Your task to perform on an android device: Go to Yahoo.com Image 0: 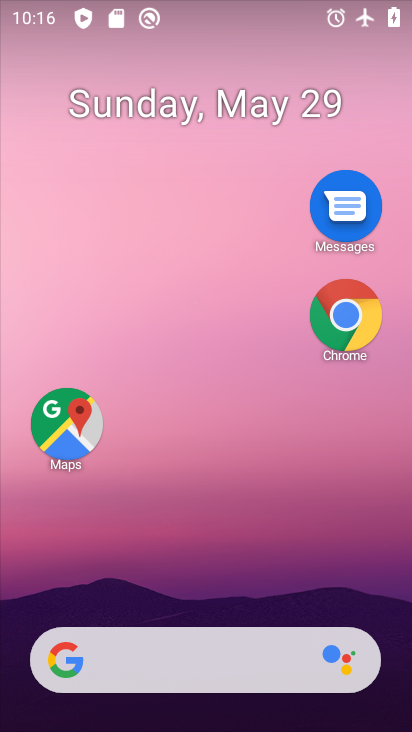
Step 0: press home button
Your task to perform on an android device: Go to Yahoo.com Image 1: 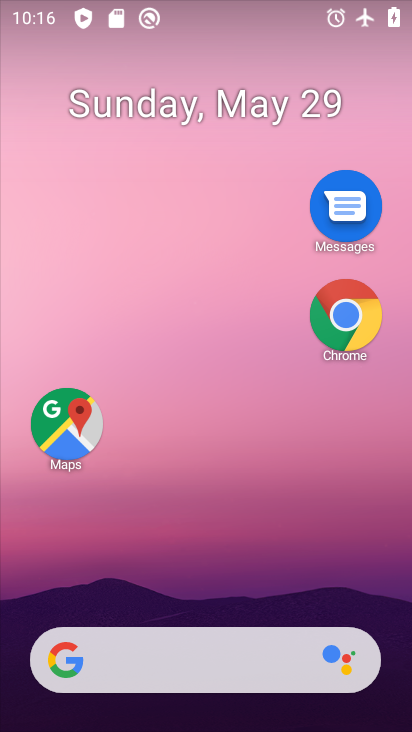
Step 1: drag from (191, 581) to (103, 0)
Your task to perform on an android device: Go to Yahoo.com Image 2: 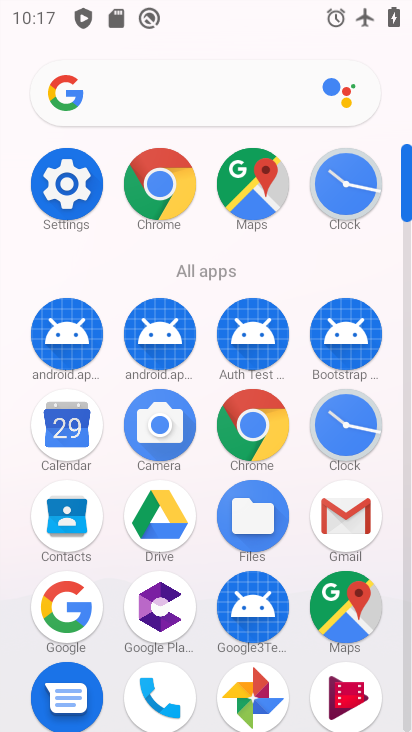
Step 2: drag from (249, 568) to (404, 592)
Your task to perform on an android device: Go to Yahoo.com Image 3: 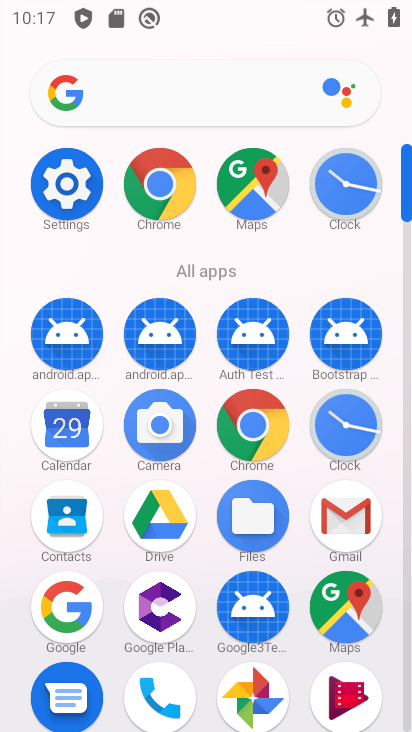
Step 3: click (255, 423)
Your task to perform on an android device: Go to Yahoo.com Image 4: 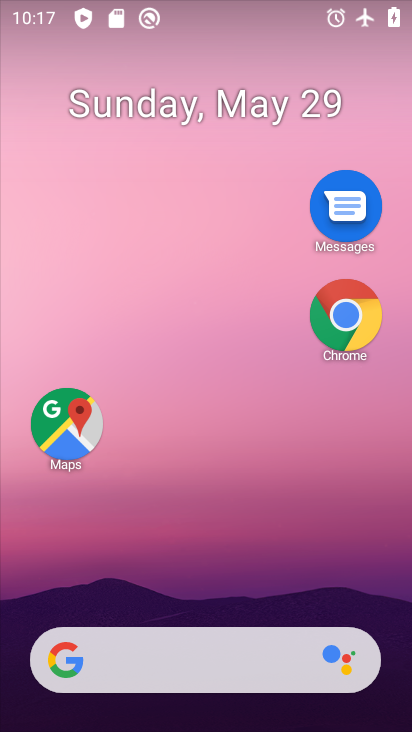
Step 4: click (352, 334)
Your task to perform on an android device: Go to Yahoo.com Image 5: 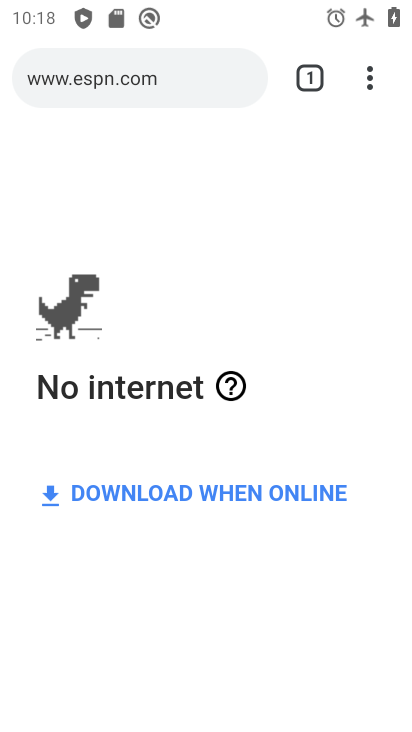
Step 5: press back button
Your task to perform on an android device: Go to Yahoo.com Image 6: 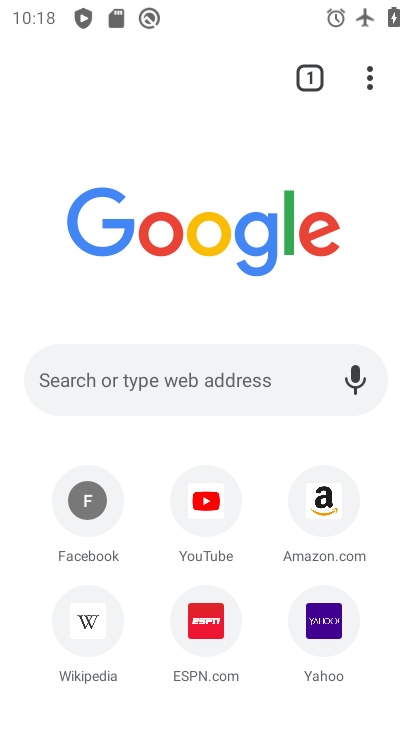
Step 6: press back button
Your task to perform on an android device: Go to Yahoo.com Image 7: 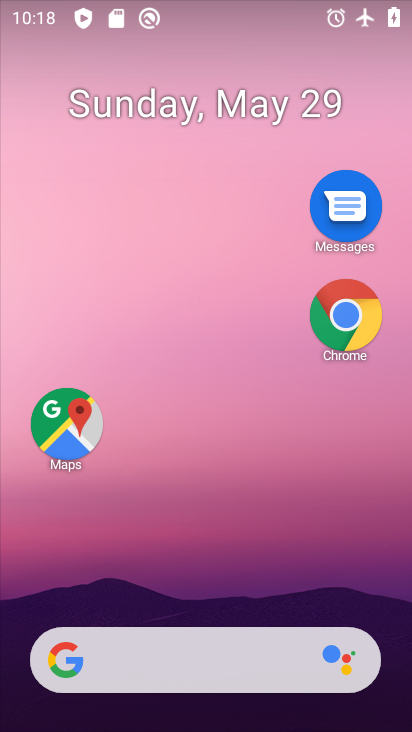
Step 7: drag from (166, 550) to (186, 82)
Your task to perform on an android device: Go to Yahoo.com Image 8: 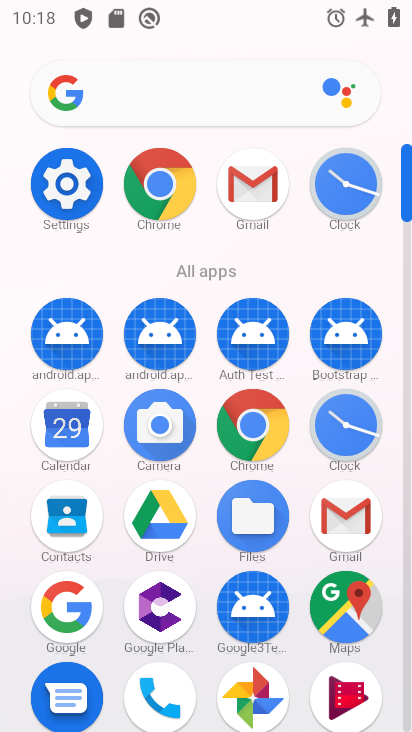
Step 8: click (78, 189)
Your task to perform on an android device: Go to Yahoo.com Image 9: 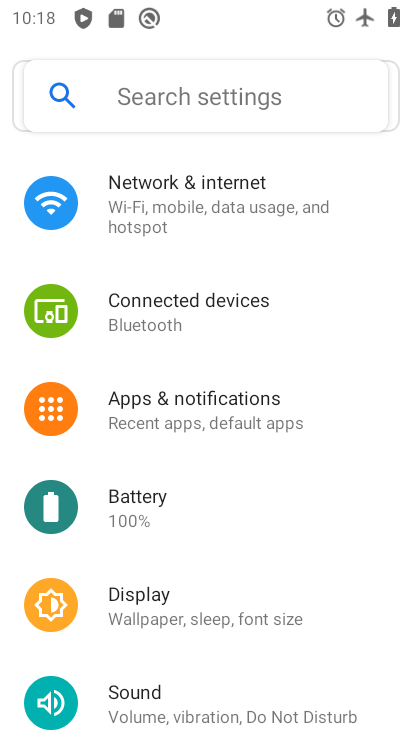
Step 9: click (114, 203)
Your task to perform on an android device: Go to Yahoo.com Image 10: 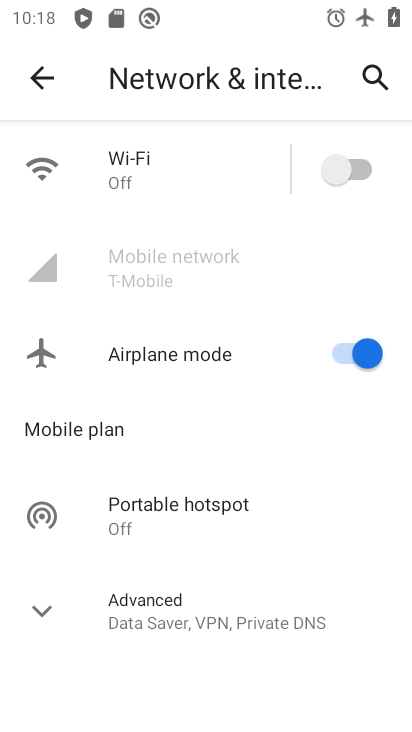
Step 10: click (332, 370)
Your task to perform on an android device: Go to Yahoo.com Image 11: 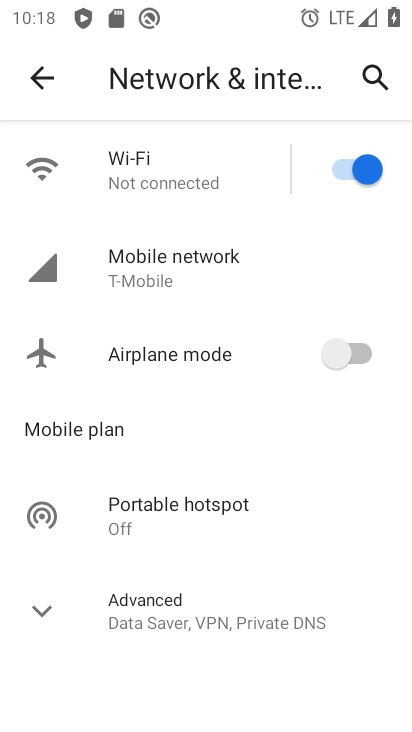
Step 11: task complete